Your task to perform on an android device: Open calendar and show me the second week of next month Image 0: 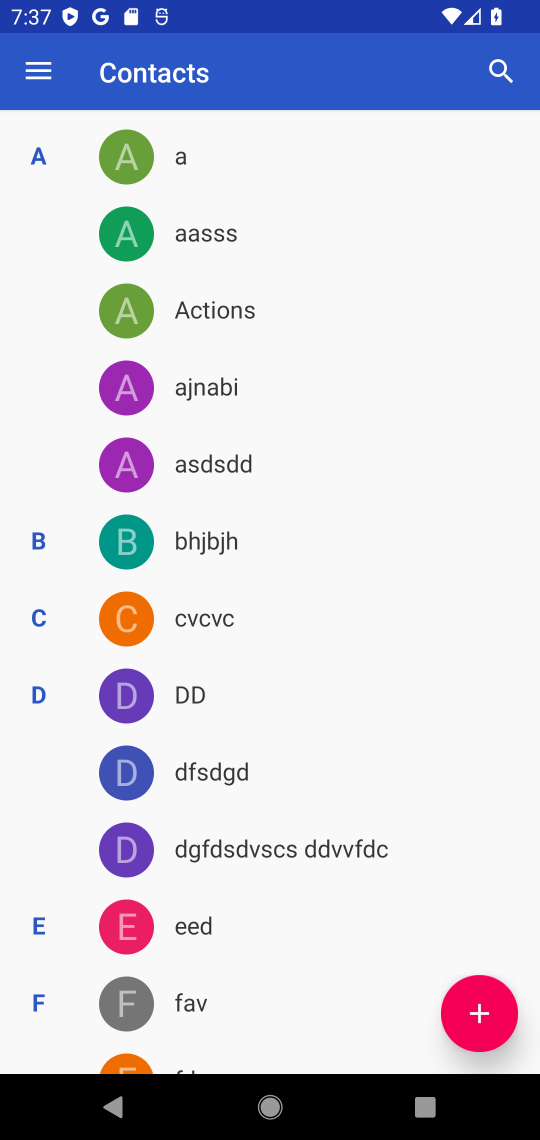
Step 0: press home button
Your task to perform on an android device: Open calendar and show me the second week of next month Image 1: 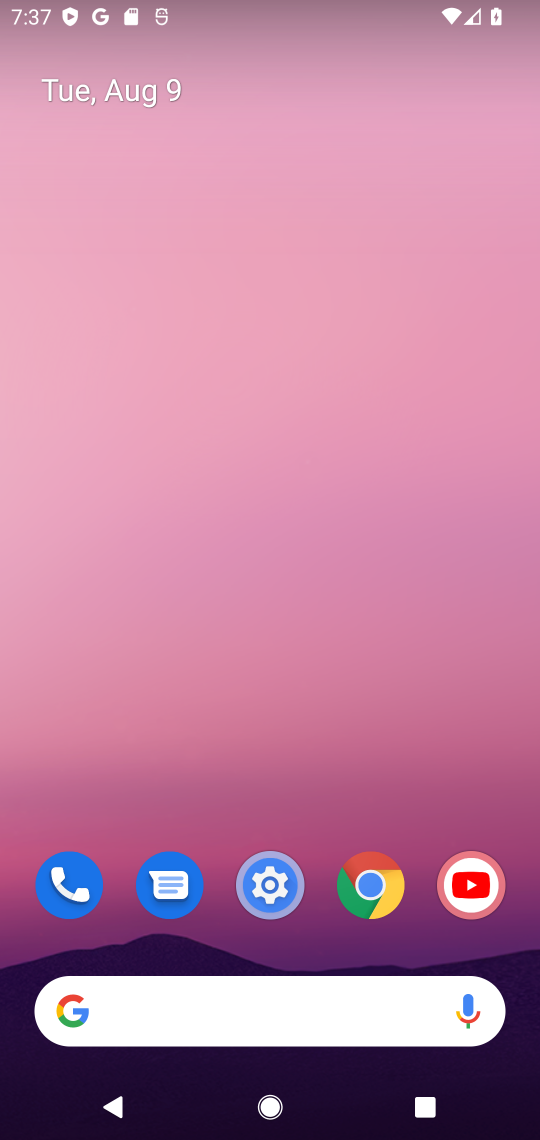
Step 1: drag from (335, 790) to (68, 93)
Your task to perform on an android device: Open calendar and show me the second week of next month Image 2: 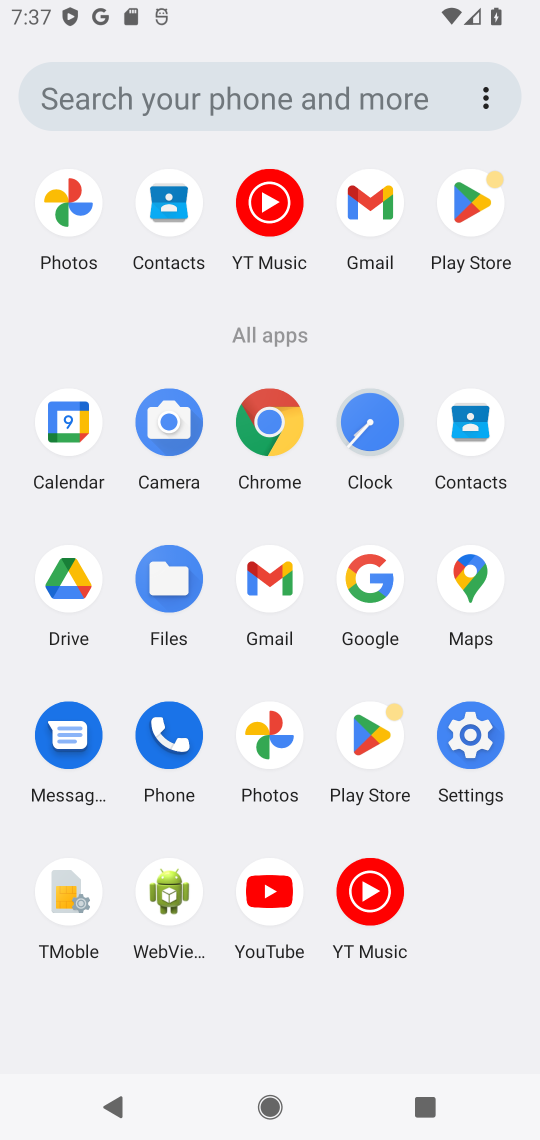
Step 2: click (61, 439)
Your task to perform on an android device: Open calendar and show me the second week of next month Image 3: 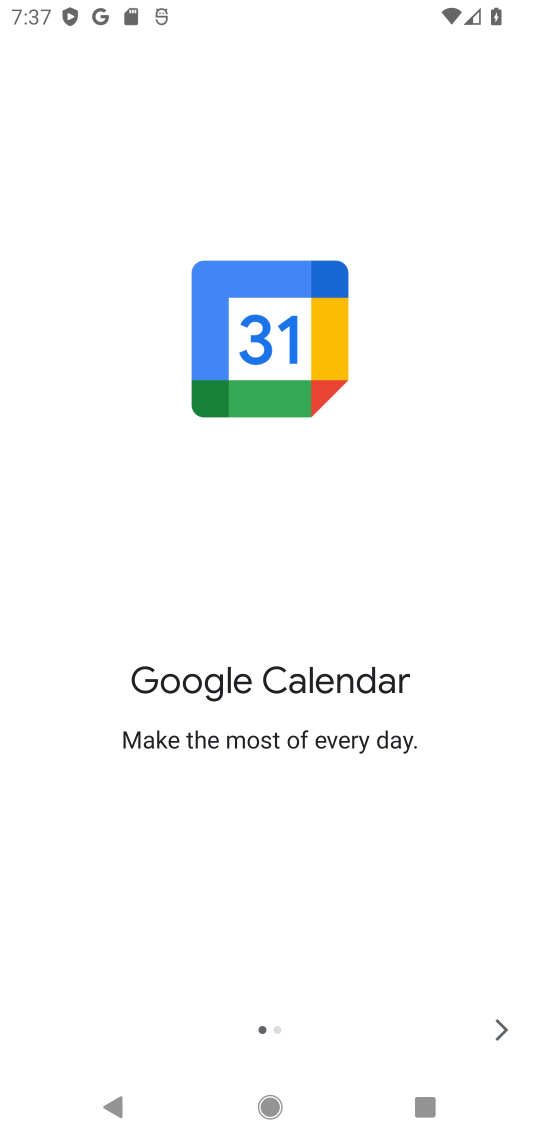
Step 3: click (501, 1021)
Your task to perform on an android device: Open calendar and show me the second week of next month Image 4: 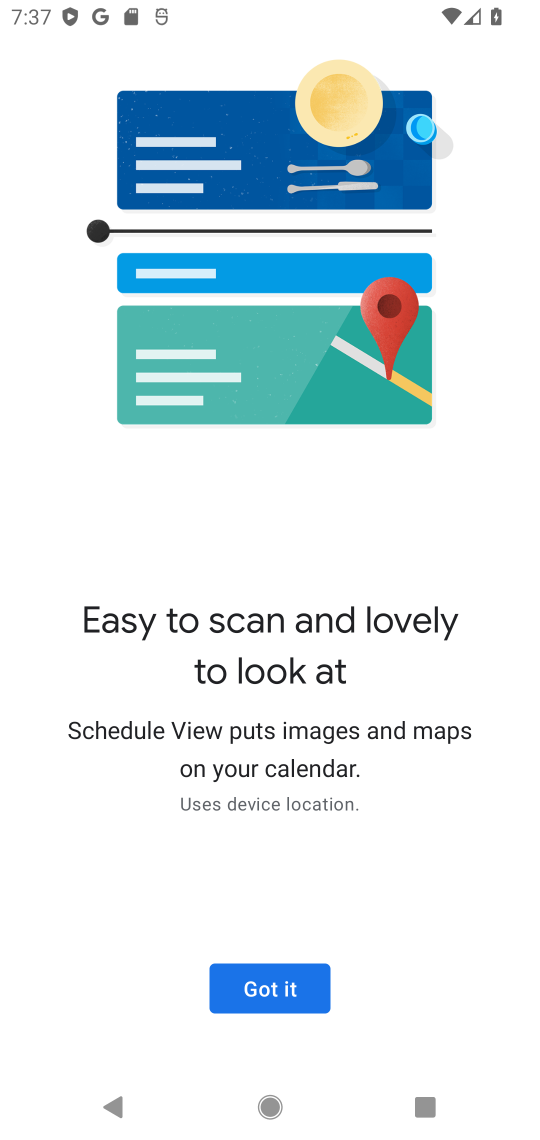
Step 4: click (278, 998)
Your task to perform on an android device: Open calendar and show me the second week of next month Image 5: 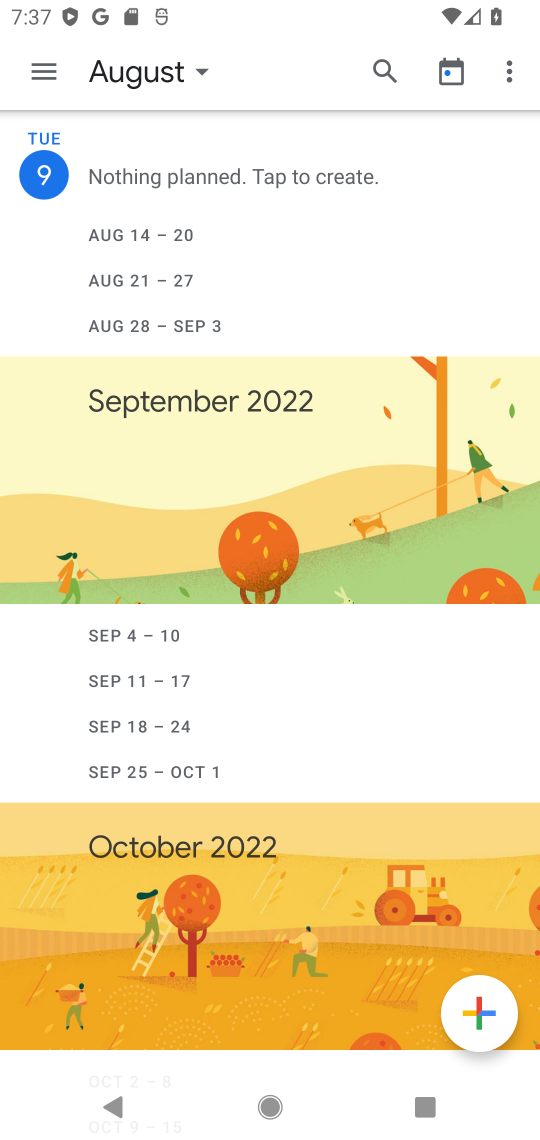
Step 5: task complete